Your task to perform on an android device: open app "Microsoft Excel" (install if not already installed), go to login, and select forgot password Image 0: 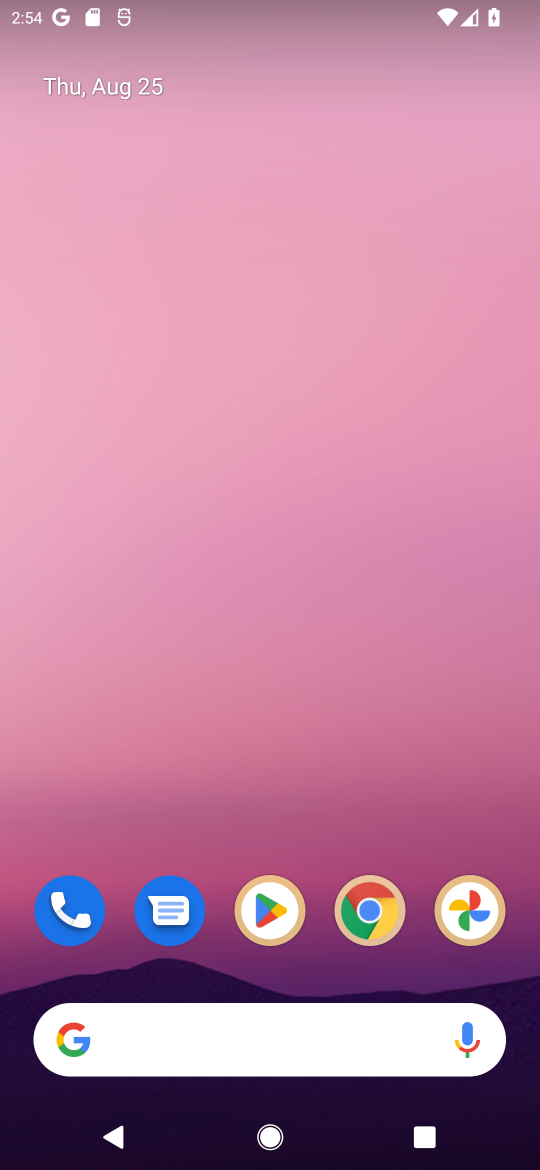
Step 0: drag from (372, 1077) to (533, 37)
Your task to perform on an android device: open app "Microsoft Excel" (install if not already installed), go to login, and select forgot password Image 1: 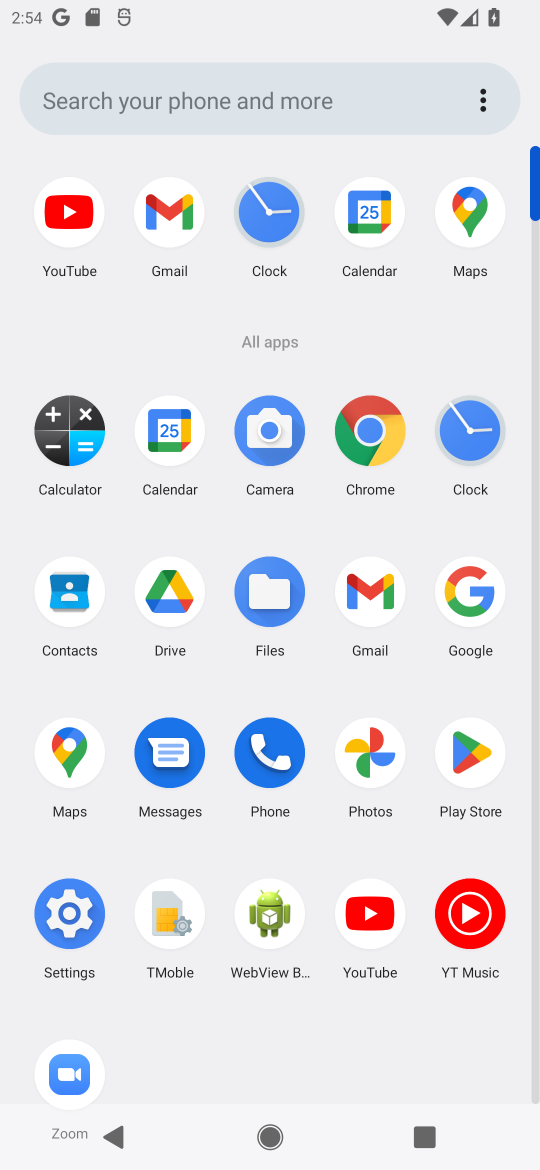
Step 1: click (467, 757)
Your task to perform on an android device: open app "Microsoft Excel" (install if not already installed), go to login, and select forgot password Image 2: 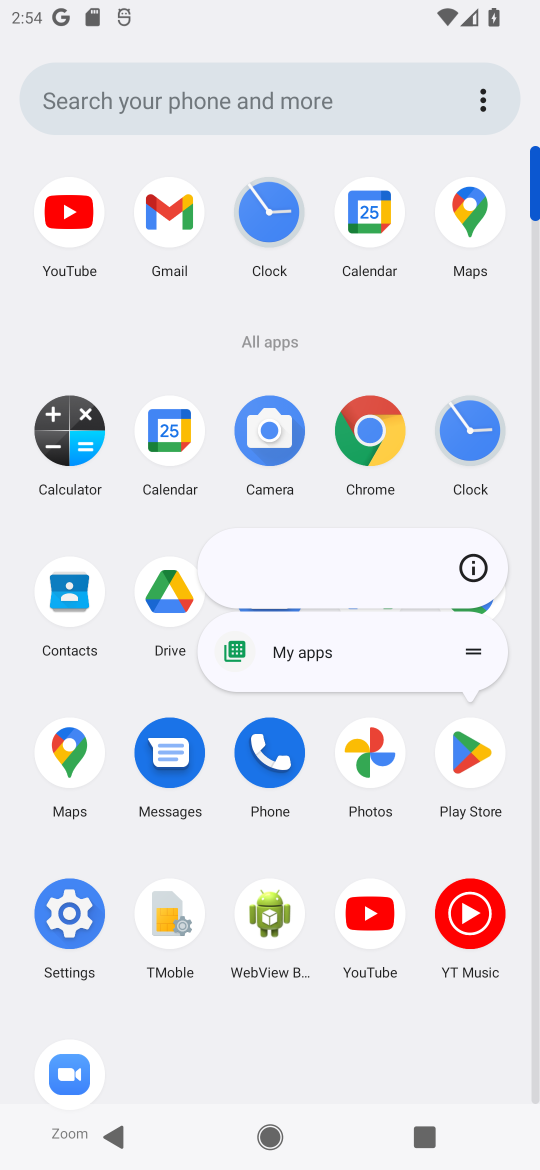
Step 2: click (453, 763)
Your task to perform on an android device: open app "Microsoft Excel" (install if not already installed), go to login, and select forgot password Image 3: 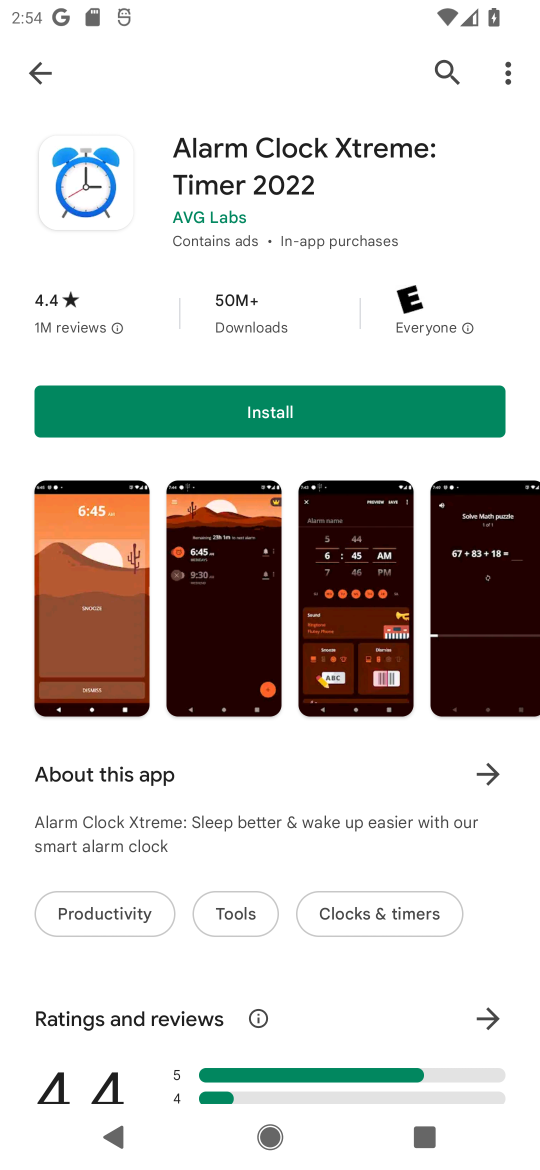
Step 3: press back button
Your task to perform on an android device: open app "Microsoft Excel" (install if not already installed), go to login, and select forgot password Image 4: 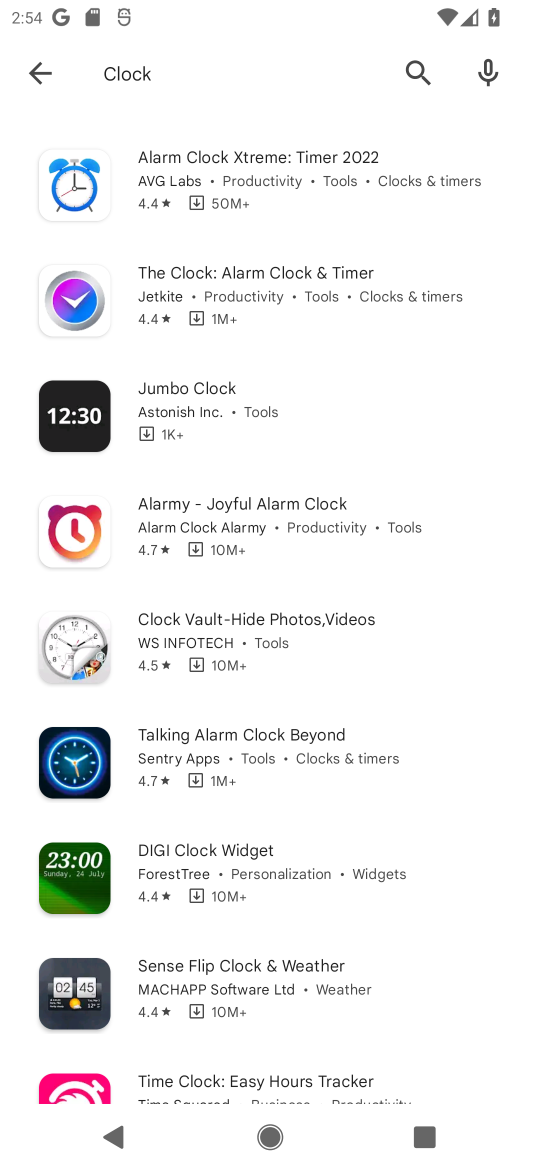
Step 4: type "Microsoft Excel"
Your task to perform on an android device: open app "Microsoft Excel" (install if not already installed), go to login, and select forgot password Image 5: 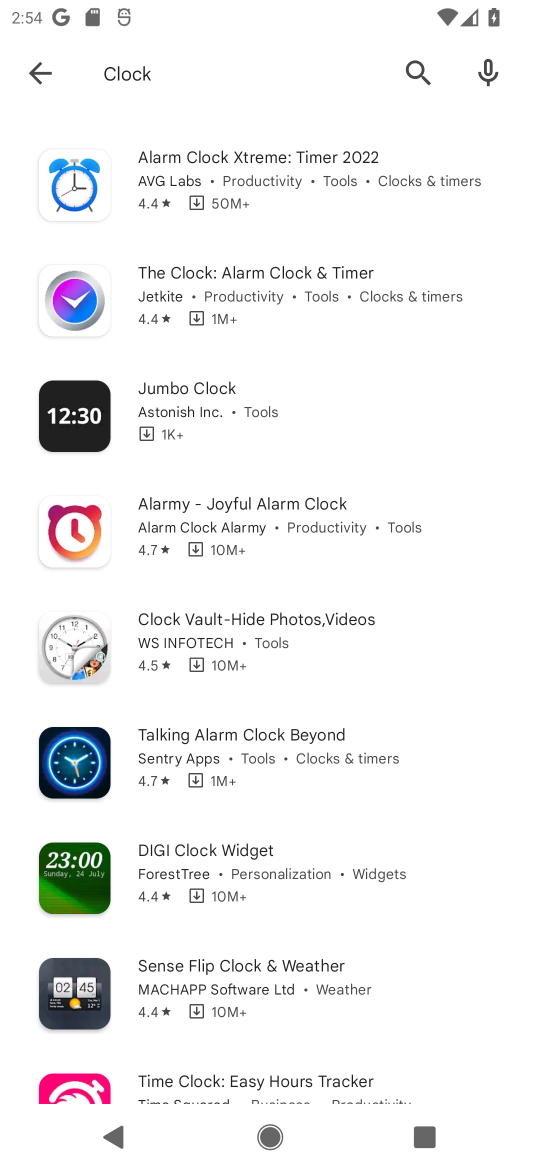
Step 5: press enter
Your task to perform on an android device: open app "Microsoft Excel" (install if not already installed), go to login, and select forgot password Image 6: 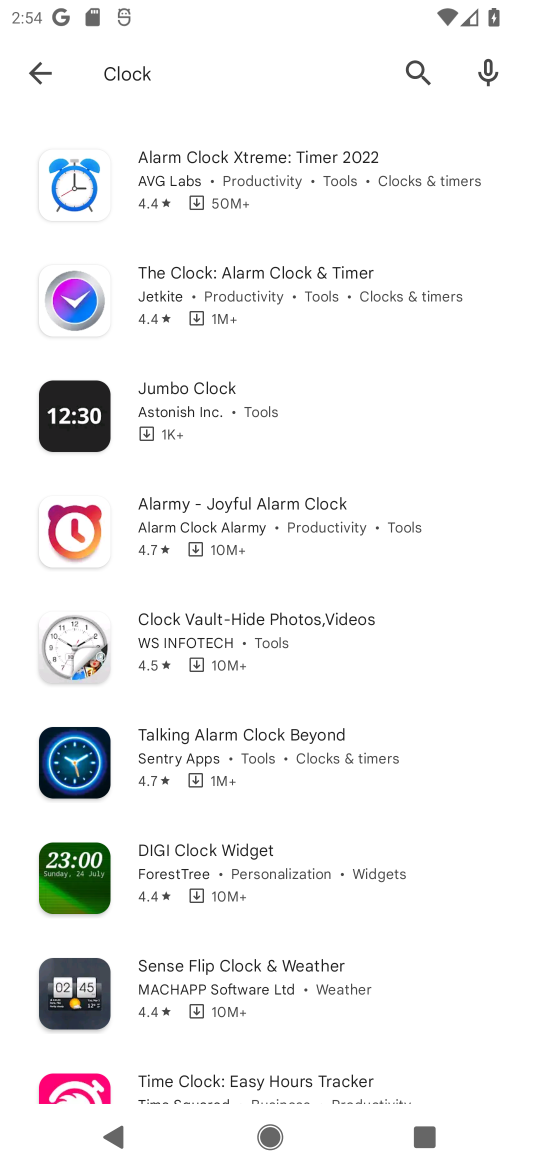
Step 6: press back button
Your task to perform on an android device: open app "Microsoft Excel" (install if not already installed), go to login, and select forgot password Image 7: 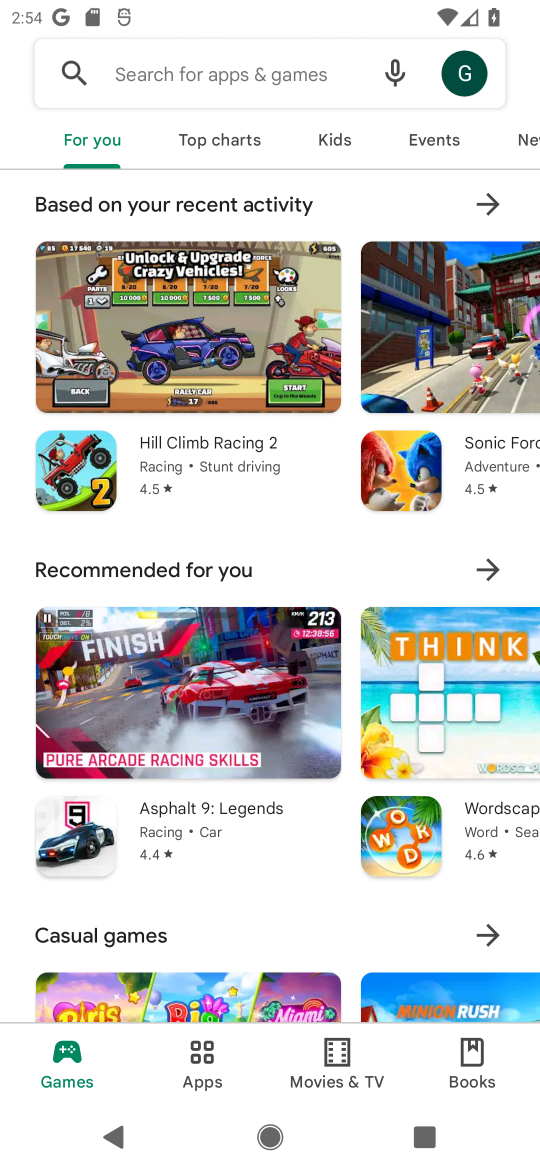
Step 7: click (184, 82)
Your task to perform on an android device: open app "Microsoft Excel" (install if not already installed), go to login, and select forgot password Image 8: 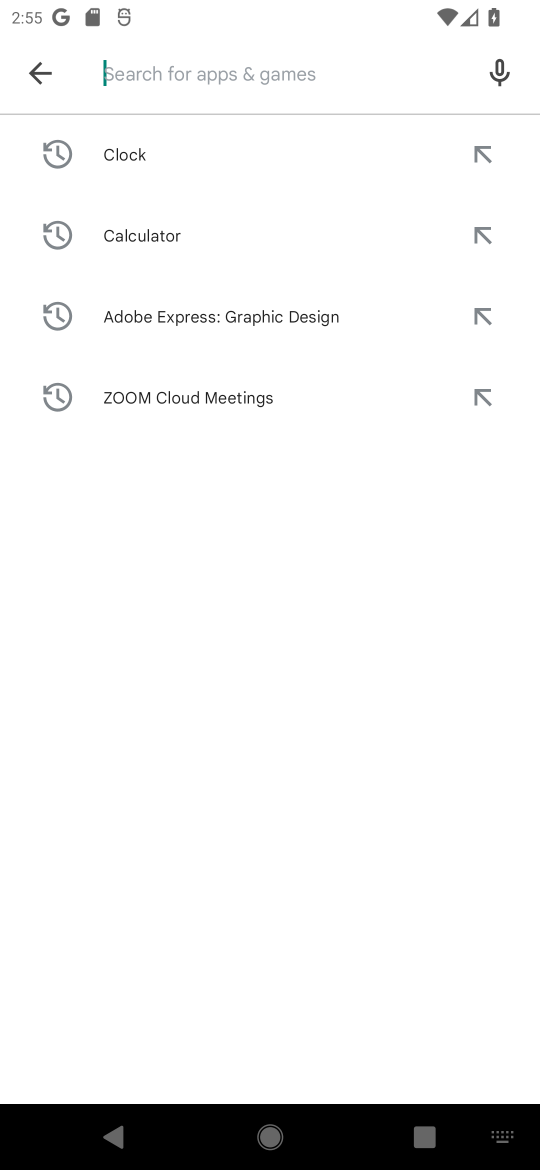
Step 8: type "Microsoft Excel"
Your task to perform on an android device: open app "Microsoft Excel" (install if not already installed), go to login, and select forgot password Image 9: 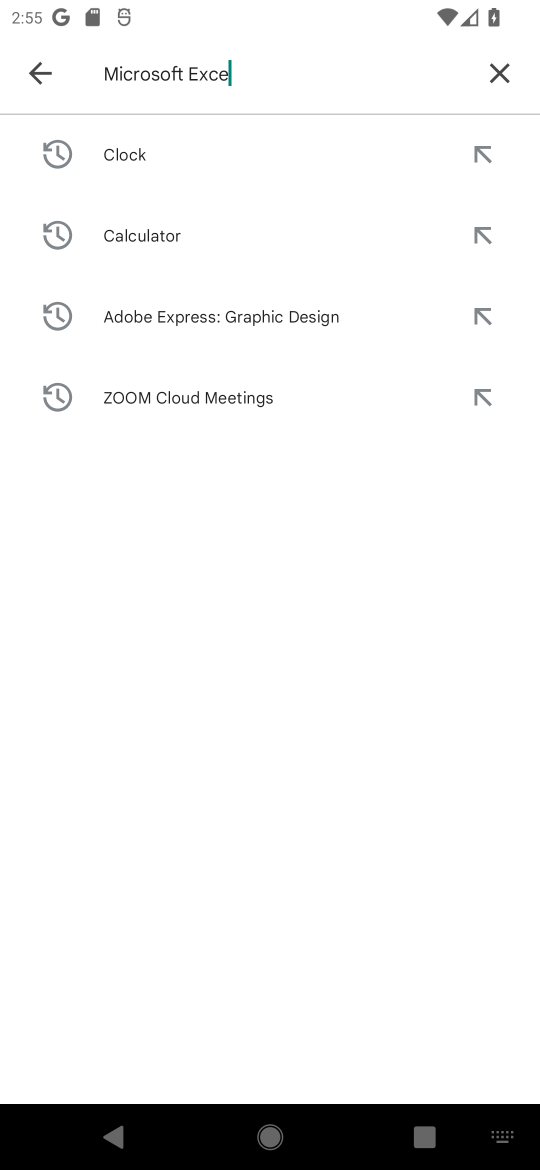
Step 9: press enter
Your task to perform on an android device: open app "Microsoft Excel" (install if not already installed), go to login, and select forgot password Image 10: 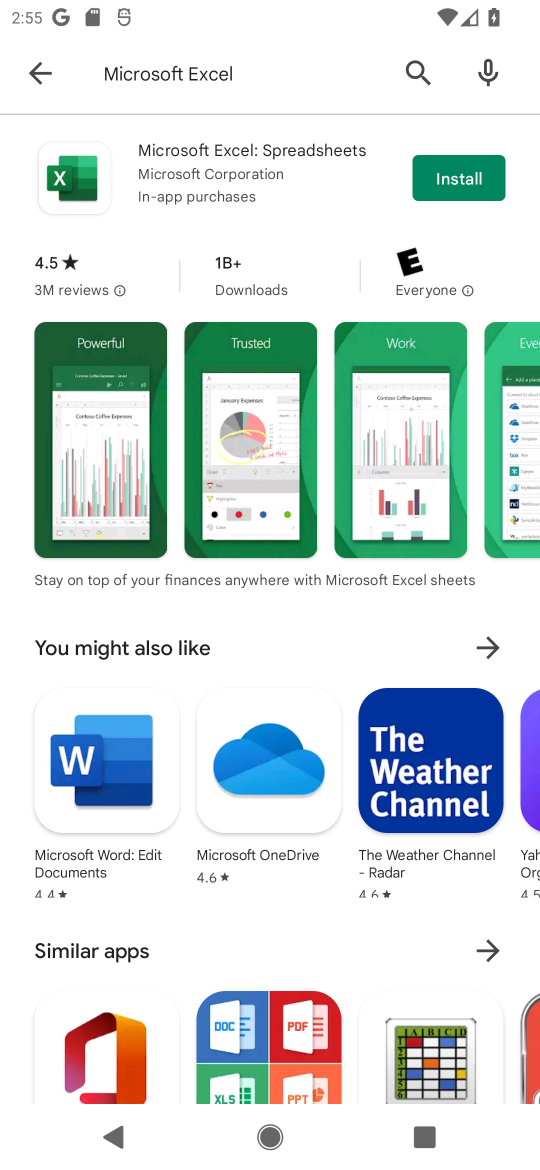
Step 10: click (481, 177)
Your task to perform on an android device: open app "Microsoft Excel" (install if not already installed), go to login, and select forgot password Image 11: 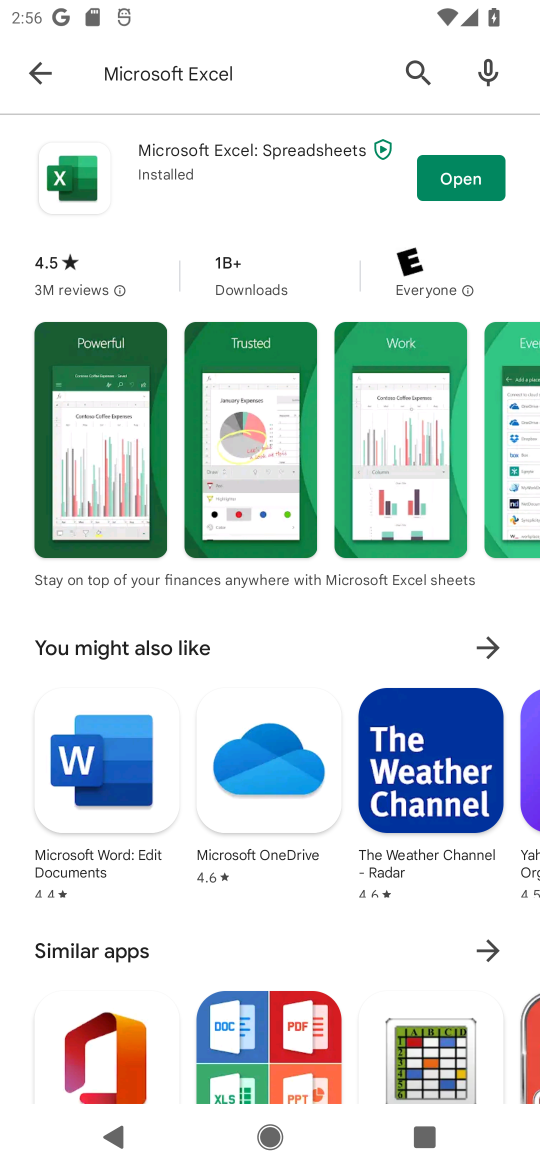
Step 11: click (474, 174)
Your task to perform on an android device: open app "Microsoft Excel" (install if not already installed), go to login, and select forgot password Image 12: 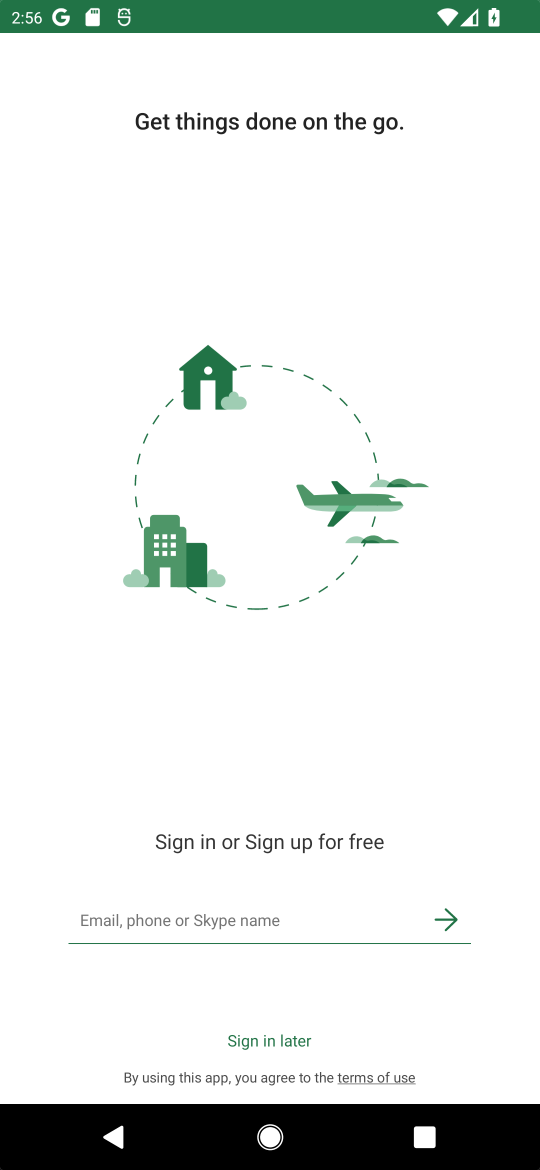
Step 12: click (438, 897)
Your task to perform on an android device: open app "Microsoft Excel" (install if not already installed), go to login, and select forgot password Image 13: 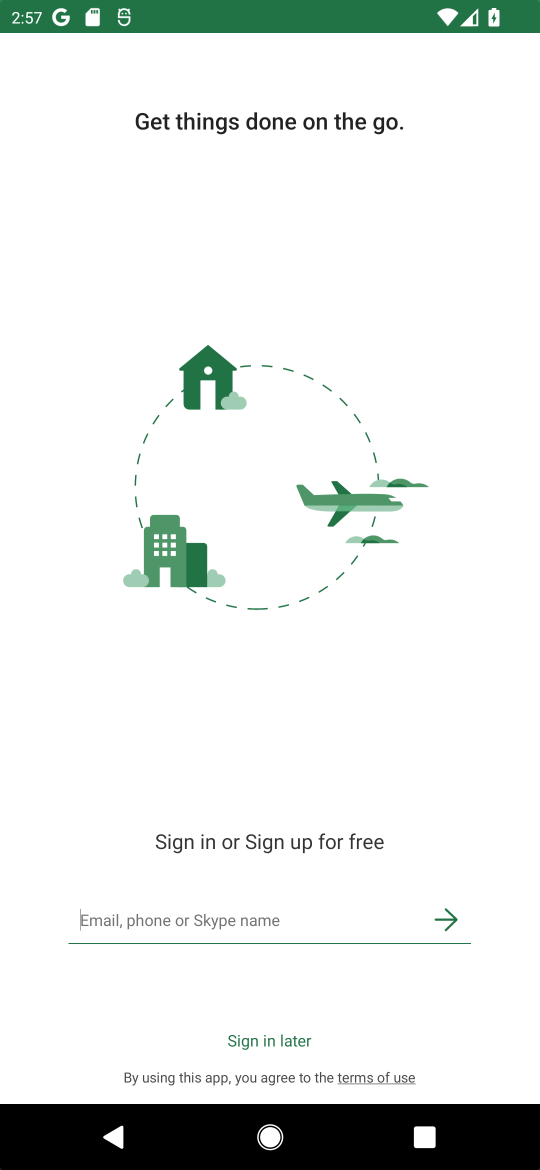
Step 13: click (427, 927)
Your task to perform on an android device: open app "Microsoft Excel" (install if not already installed), go to login, and select forgot password Image 14: 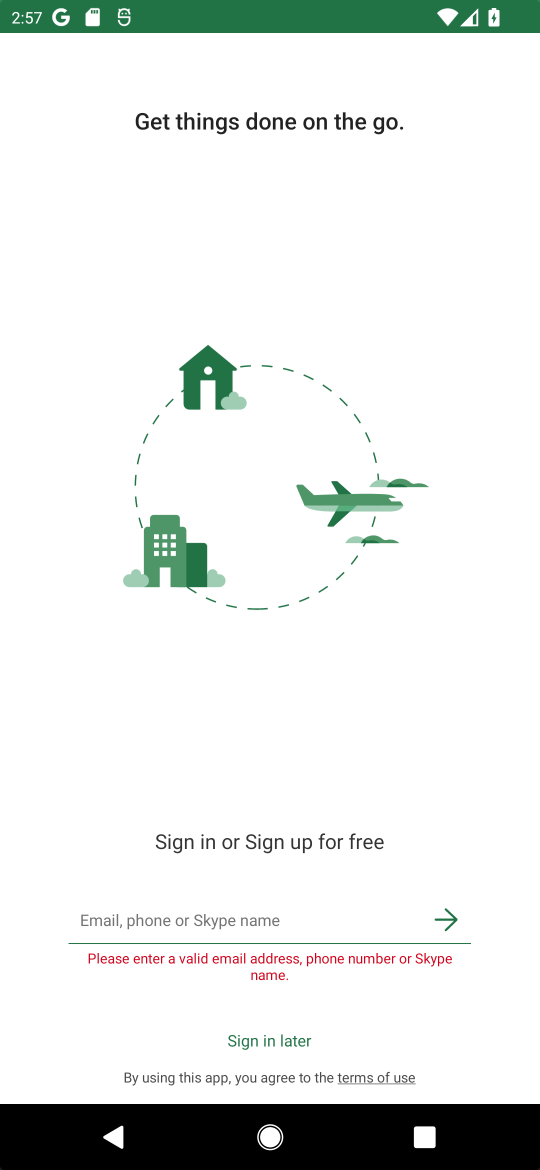
Step 14: task complete